Your task to perform on an android device: clear history in the chrome app Image 0: 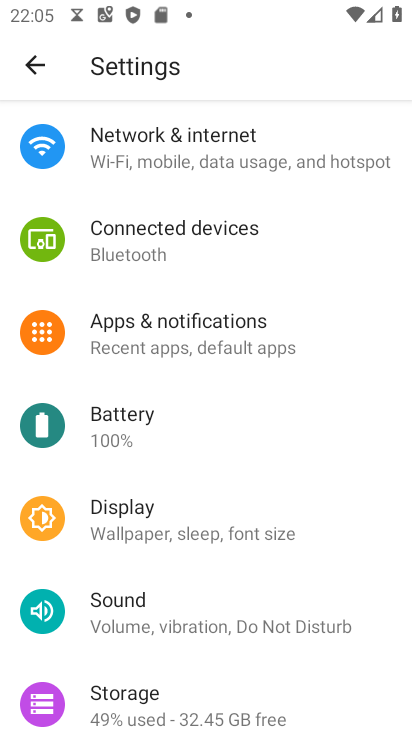
Step 0: press home button
Your task to perform on an android device: clear history in the chrome app Image 1: 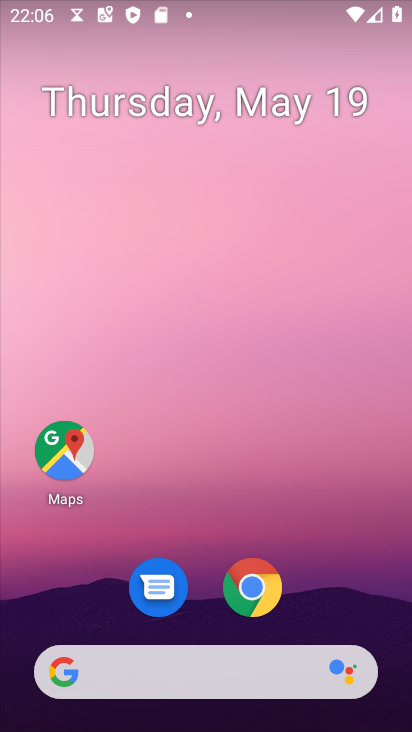
Step 1: click (252, 614)
Your task to perform on an android device: clear history in the chrome app Image 2: 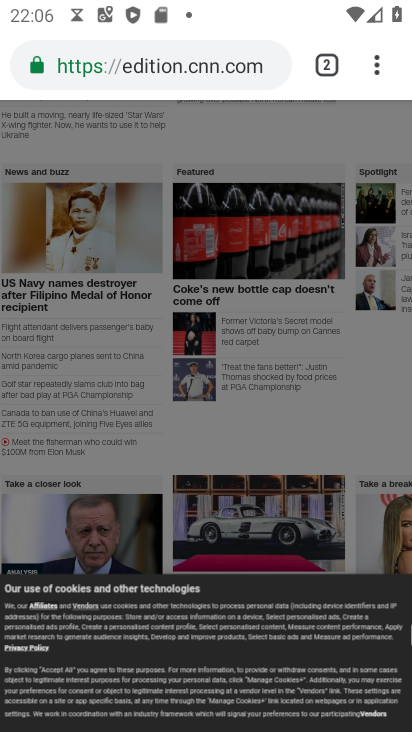
Step 2: click (277, 364)
Your task to perform on an android device: clear history in the chrome app Image 3: 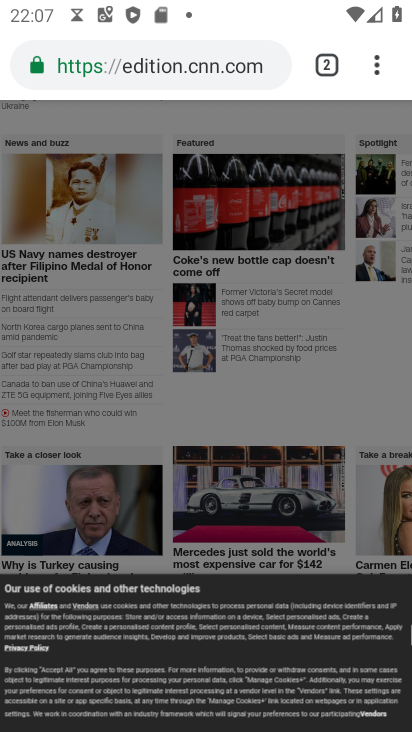
Step 3: drag from (377, 61) to (228, 368)
Your task to perform on an android device: clear history in the chrome app Image 4: 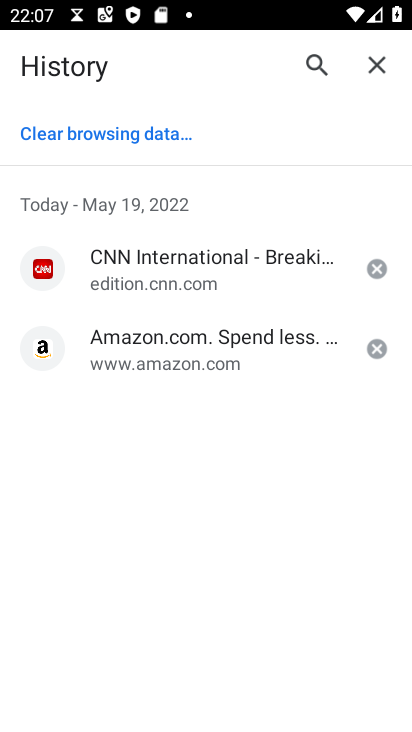
Step 4: click (124, 145)
Your task to perform on an android device: clear history in the chrome app Image 5: 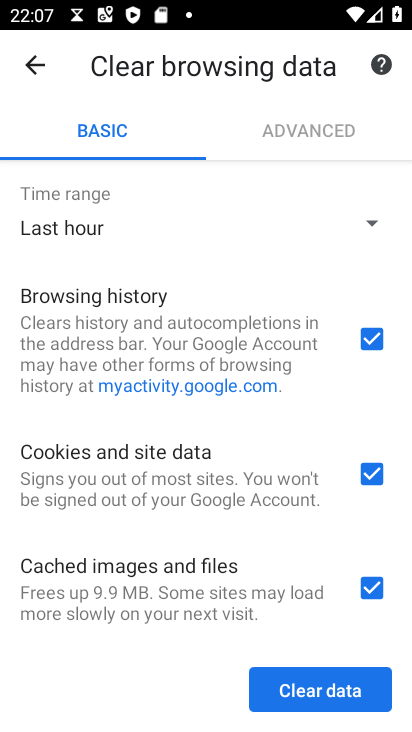
Step 5: click (275, 690)
Your task to perform on an android device: clear history in the chrome app Image 6: 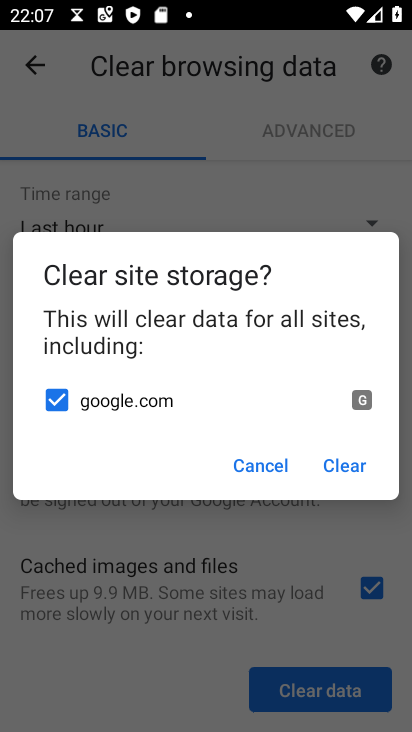
Step 6: click (333, 459)
Your task to perform on an android device: clear history in the chrome app Image 7: 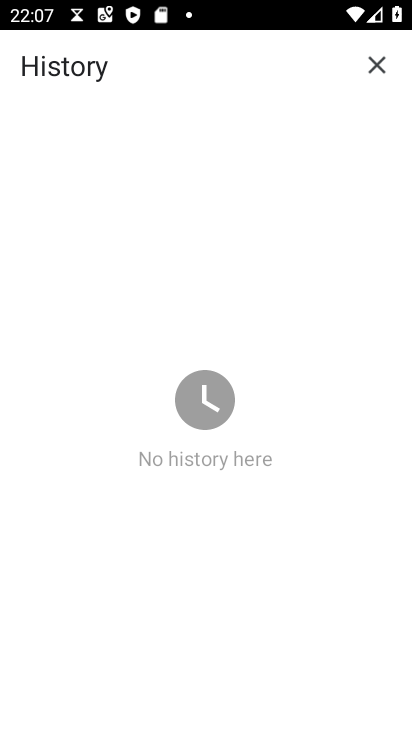
Step 7: task complete